Your task to perform on an android device: choose inbox layout in the gmail app Image 0: 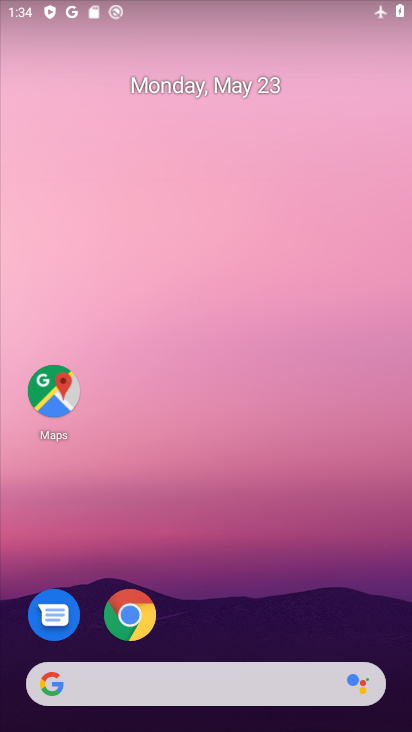
Step 0: drag from (201, 653) to (78, 183)
Your task to perform on an android device: choose inbox layout in the gmail app Image 1: 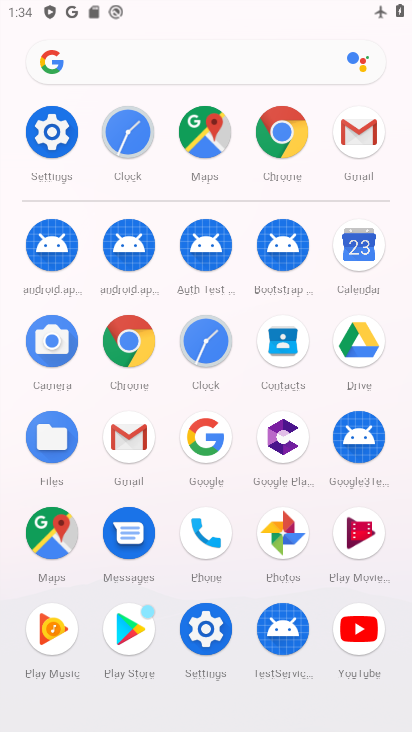
Step 1: click (124, 436)
Your task to perform on an android device: choose inbox layout in the gmail app Image 2: 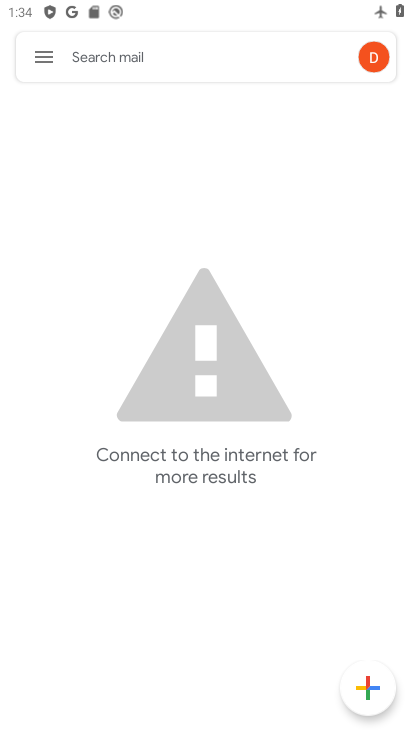
Step 2: click (36, 58)
Your task to perform on an android device: choose inbox layout in the gmail app Image 3: 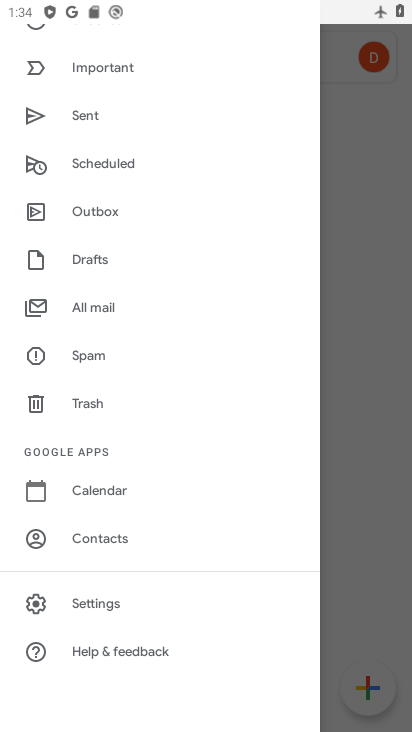
Step 3: drag from (119, 171) to (128, 609)
Your task to perform on an android device: choose inbox layout in the gmail app Image 4: 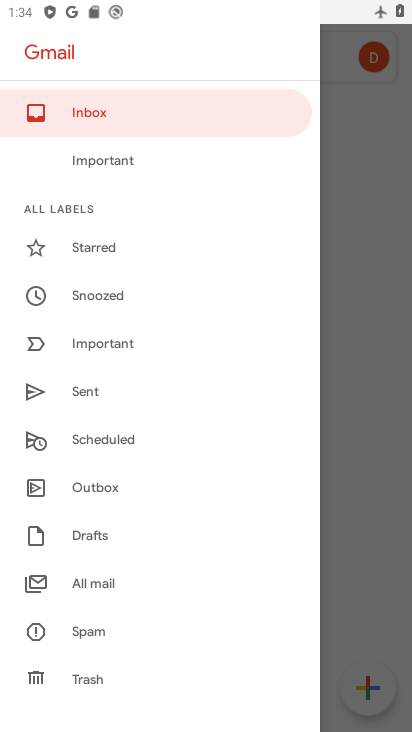
Step 4: click (145, 85)
Your task to perform on an android device: choose inbox layout in the gmail app Image 5: 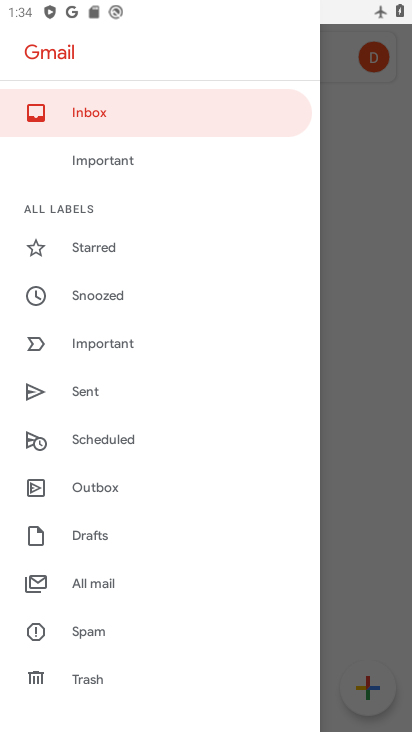
Step 5: task complete